Your task to perform on an android device: Search for pizza restaurants on Maps Image 0: 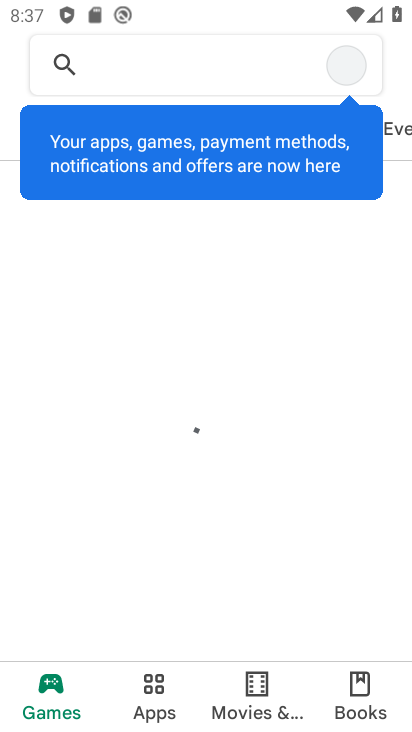
Step 0: press home button
Your task to perform on an android device: Search for pizza restaurants on Maps Image 1: 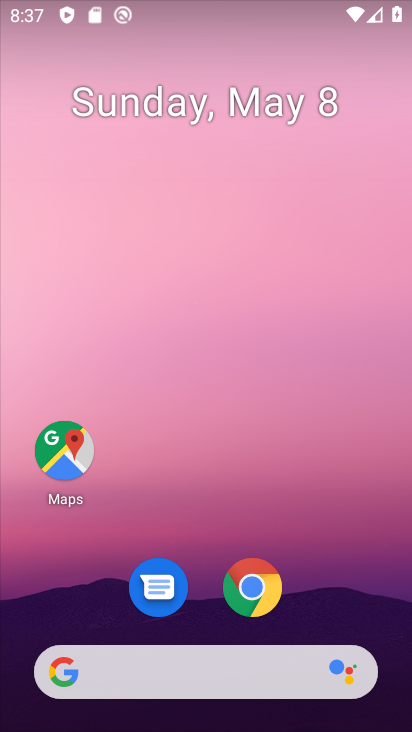
Step 1: click (77, 444)
Your task to perform on an android device: Search for pizza restaurants on Maps Image 2: 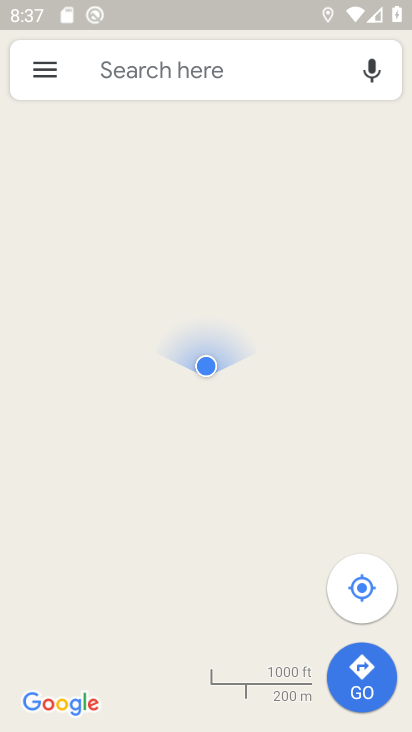
Step 2: click (213, 66)
Your task to perform on an android device: Search for pizza restaurants on Maps Image 3: 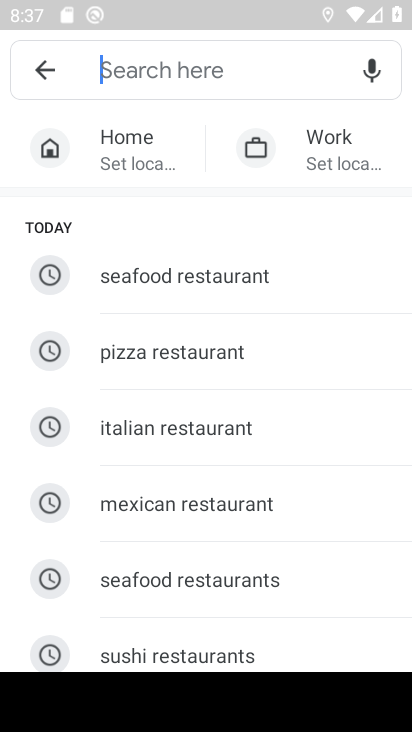
Step 3: click (266, 350)
Your task to perform on an android device: Search for pizza restaurants on Maps Image 4: 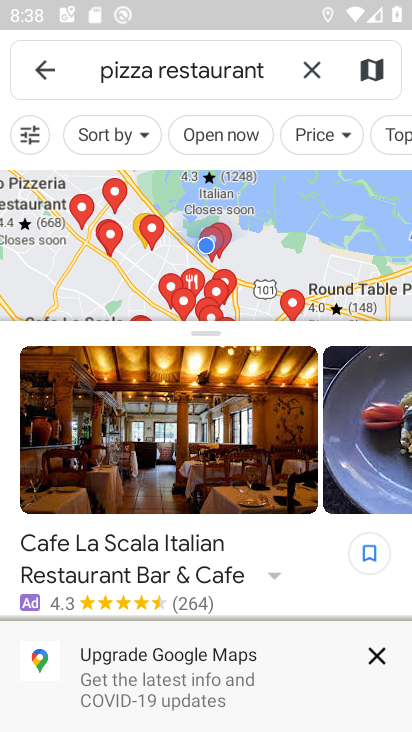
Step 4: task complete